Your task to perform on an android device: turn off priority inbox in the gmail app Image 0: 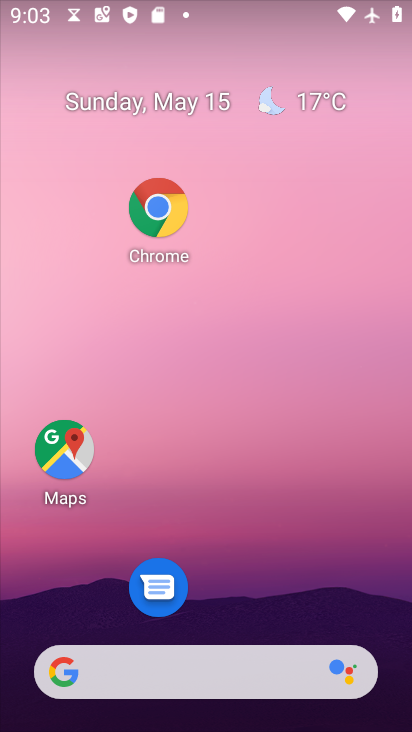
Step 0: drag from (361, 653) to (202, 107)
Your task to perform on an android device: turn off priority inbox in the gmail app Image 1: 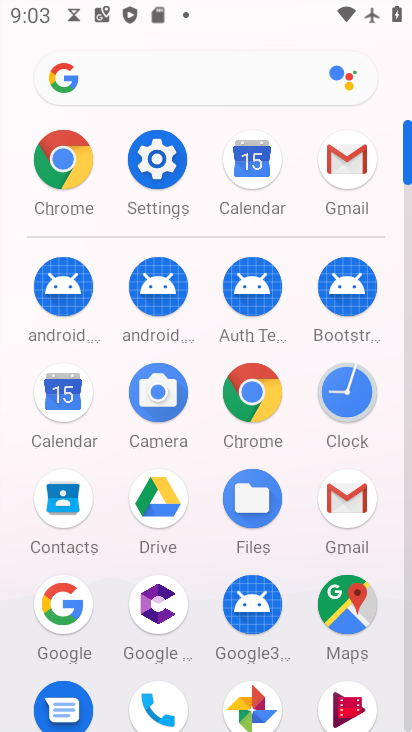
Step 1: click (348, 494)
Your task to perform on an android device: turn off priority inbox in the gmail app Image 2: 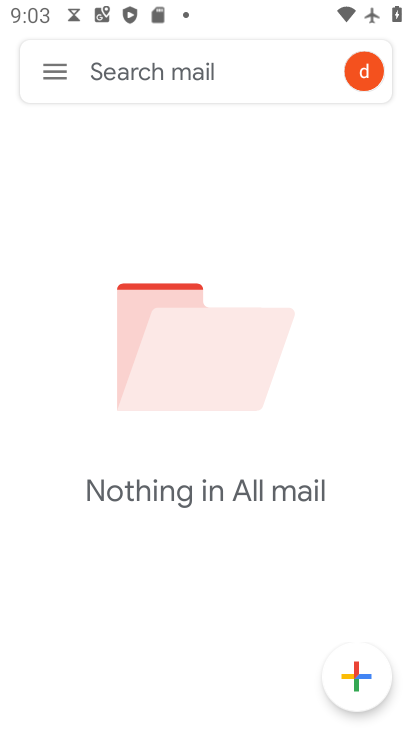
Step 2: click (53, 88)
Your task to perform on an android device: turn off priority inbox in the gmail app Image 3: 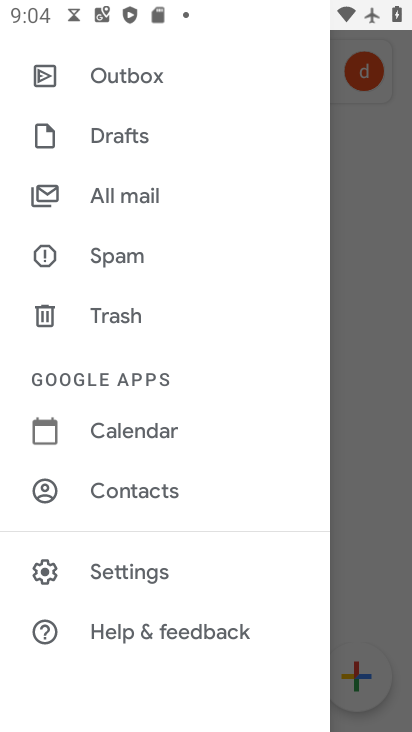
Step 3: click (132, 574)
Your task to perform on an android device: turn off priority inbox in the gmail app Image 4: 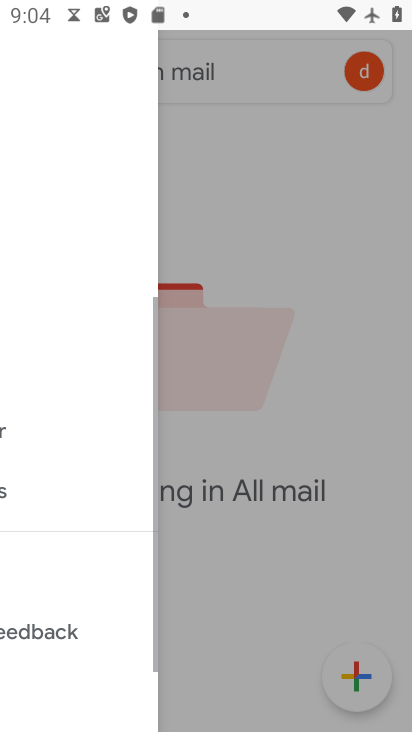
Step 4: click (136, 567)
Your task to perform on an android device: turn off priority inbox in the gmail app Image 5: 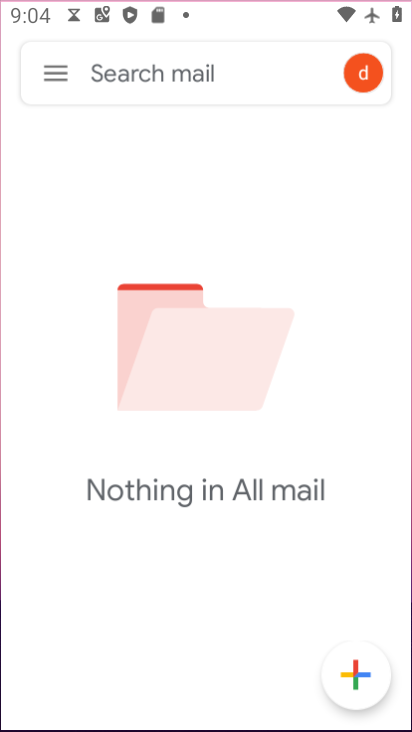
Step 5: click (122, 543)
Your task to perform on an android device: turn off priority inbox in the gmail app Image 6: 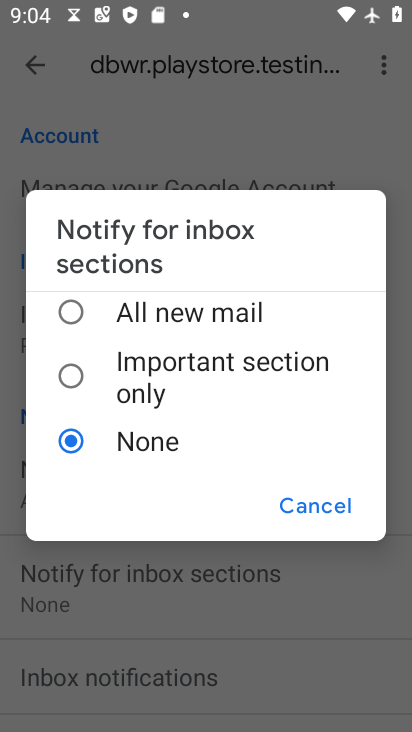
Step 6: click (334, 511)
Your task to perform on an android device: turn off priority inbox in the gmail app Image 7: 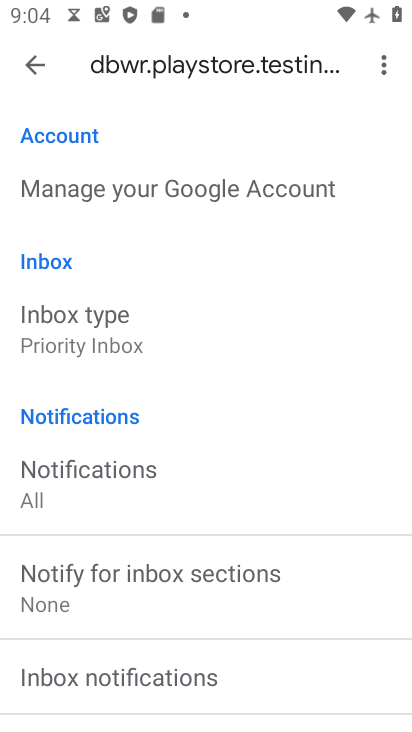
Step 7: click (76, 320)
Your task to perform on an android device: turn off priority inbox in the gmail app Image 8: 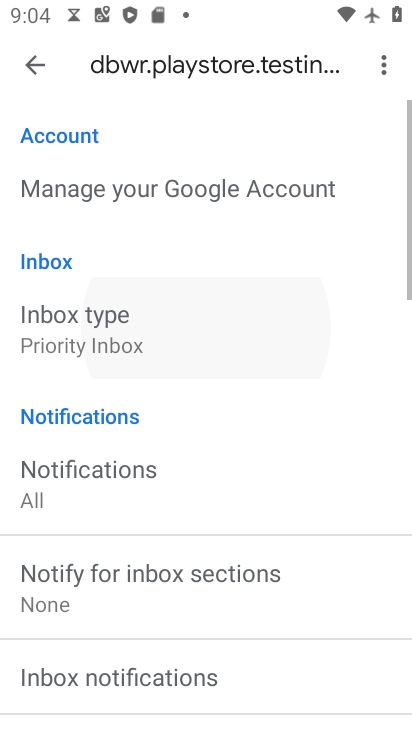
Step 8: click (76, 320)
Your task to perform on an android device: turn off priority inbox in the gmail app Image 9: 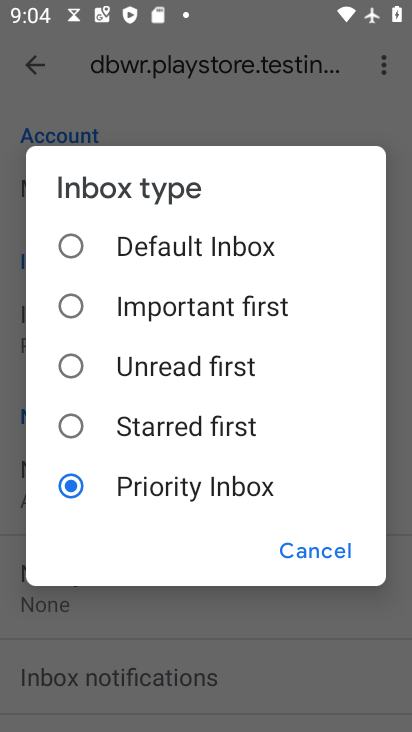
Step 9: click (69, 420)
Your task to perform on an android device: turn off priority inbox in the gmail app Image 10: 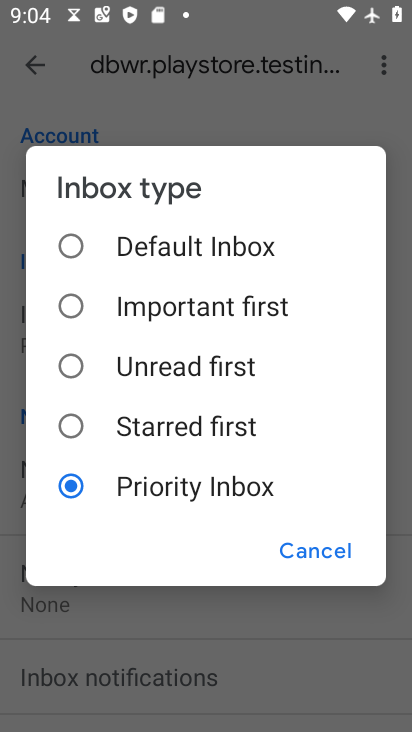
Step 10: click (69, 419)
Your task to perform on an android device: turn off priority inbox in the gmail app Image 11: 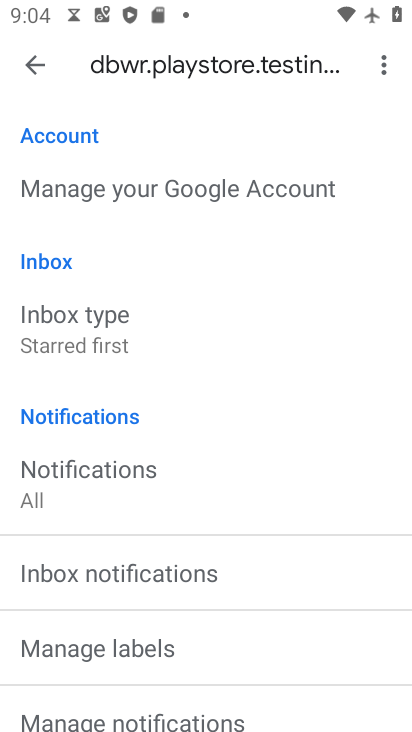
Step 11: task complete